Your task to perform on an android device: turn on priority inbox in the gmail app Image 0: 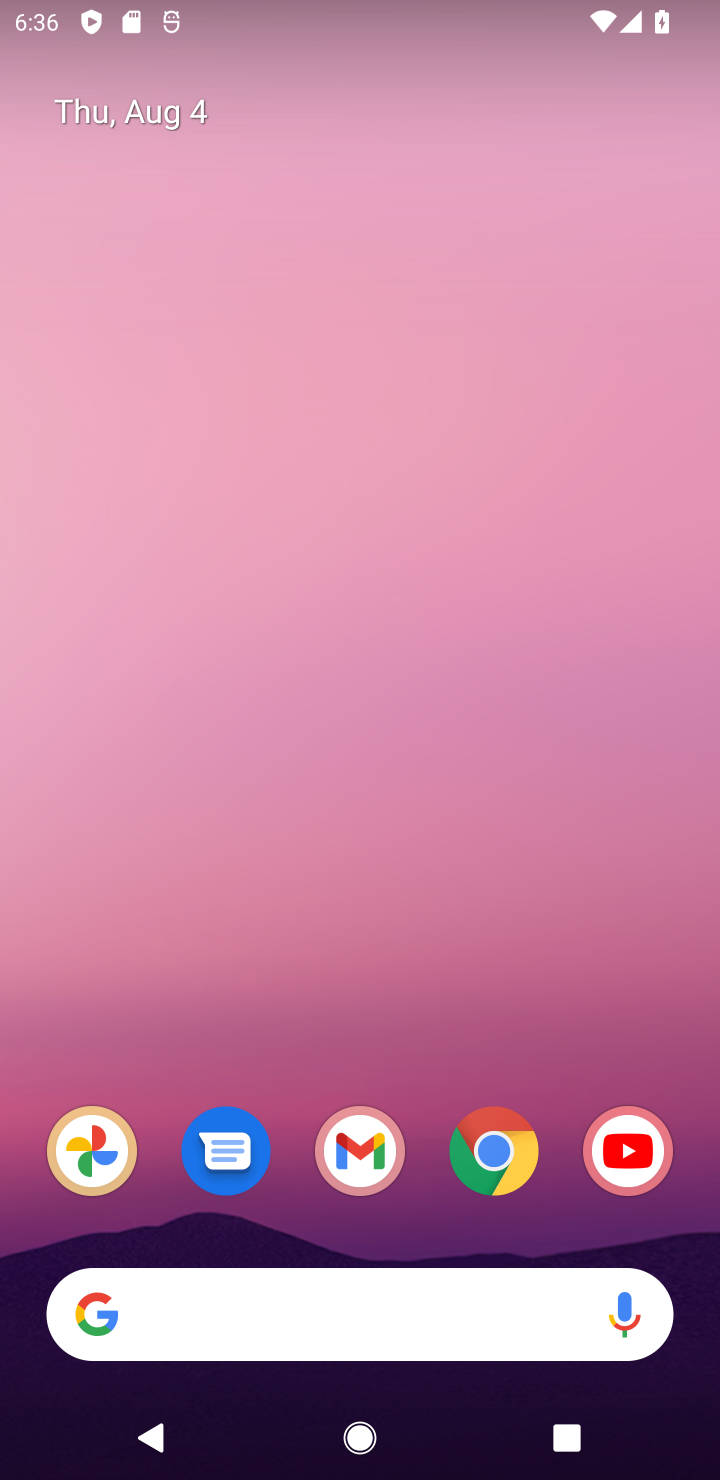
Step 0: click (350, 1163)
Your task to perform on an android device: turn on priority inbox in the gmail app Image 1: 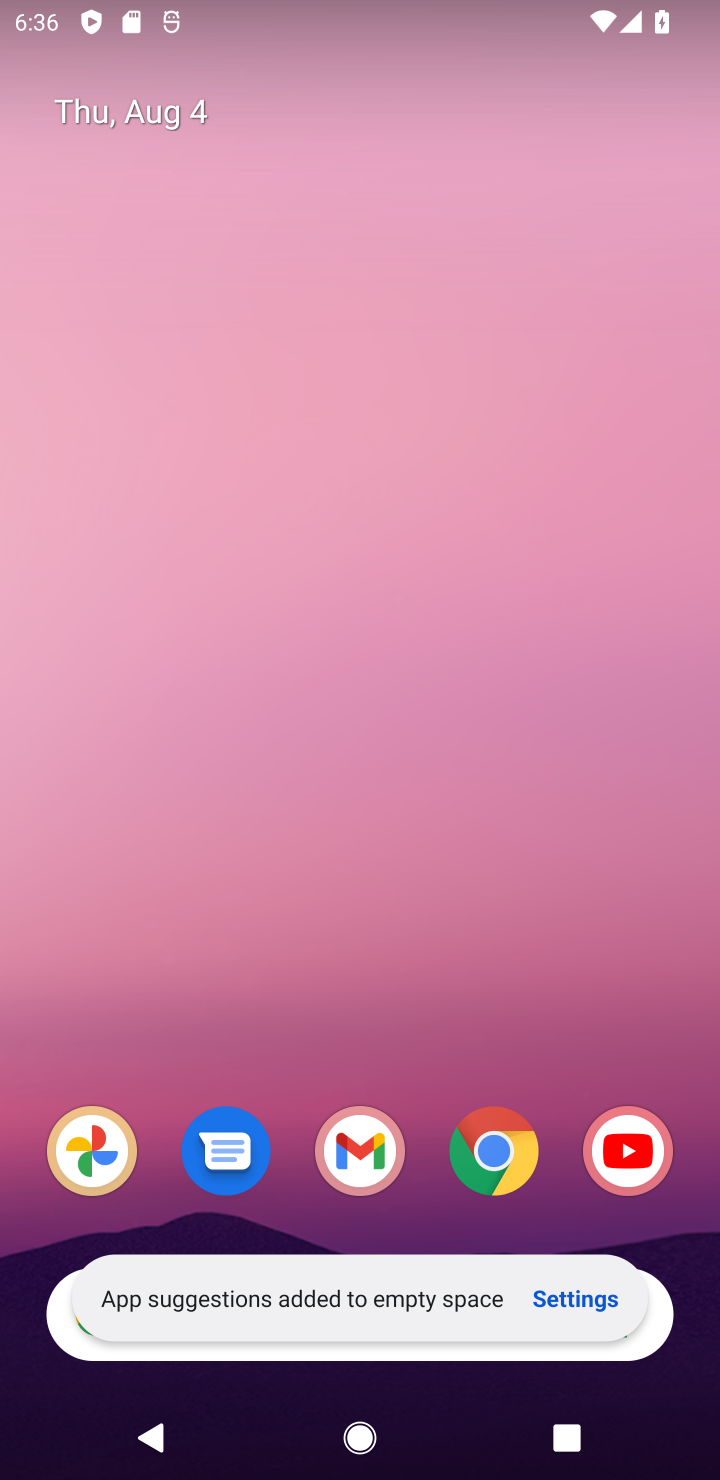
Step 1: click (350, 1155)
Your task to perform on an android device: turn on priority inbox in the gmail app Image 2: 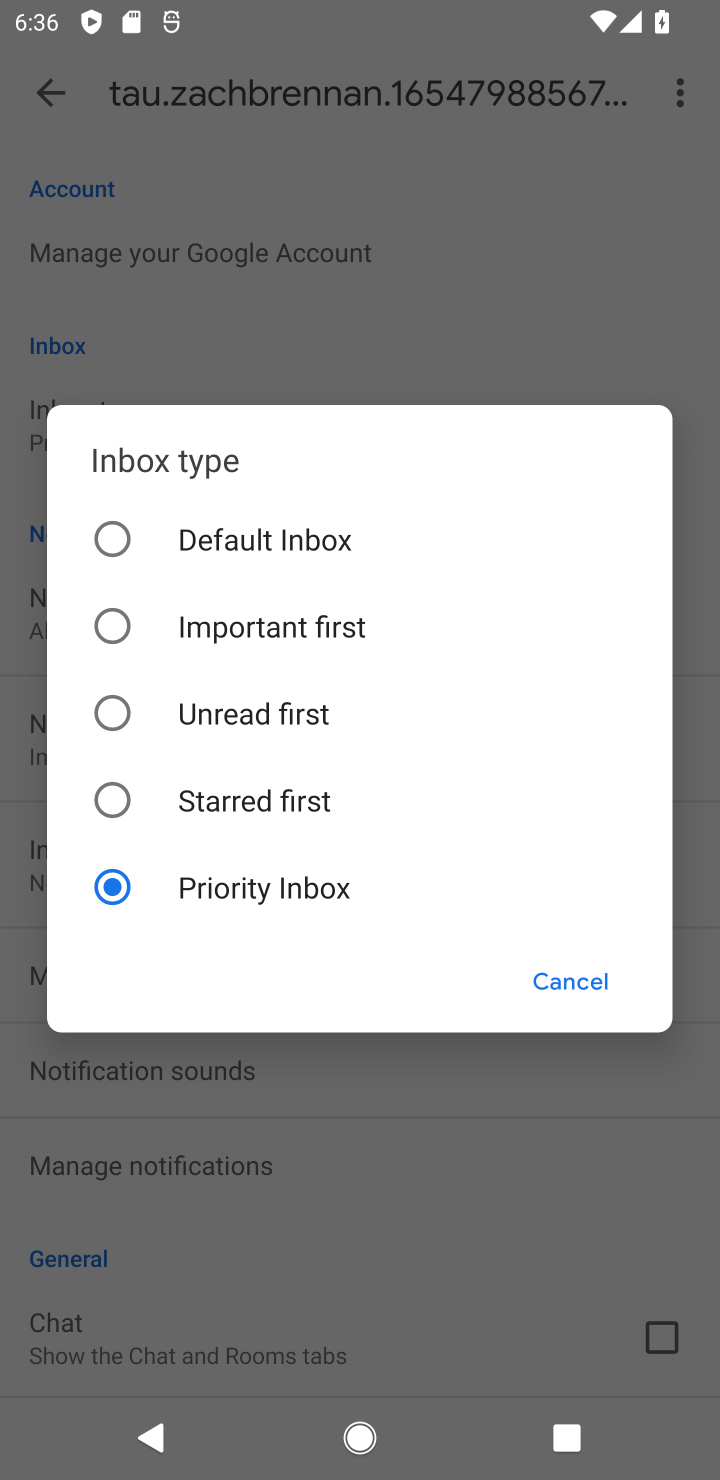
Step 2: click (562, 978)
Your task to perform on an android device: turn on priority inbox in the gmail app Image 3: 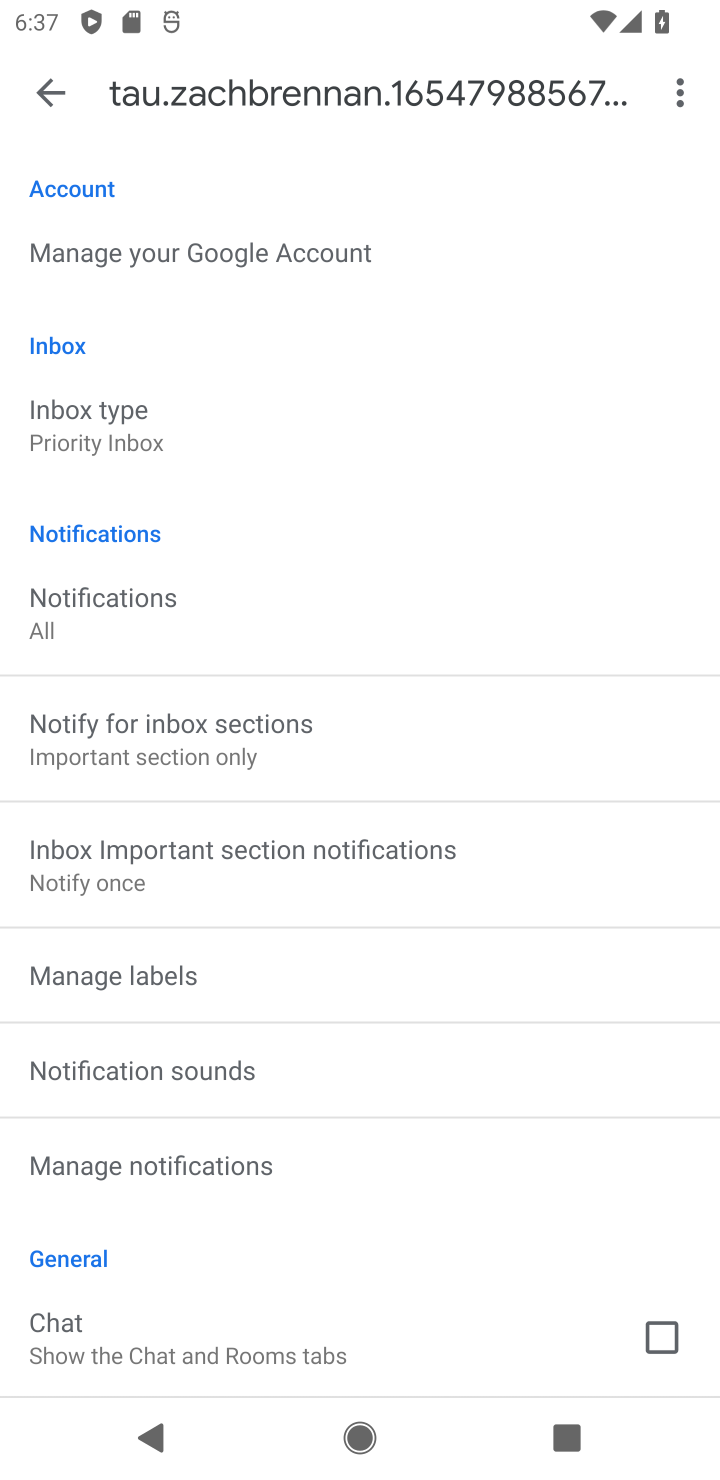
Step 3: task complete